Your task to perform on an android device: turn off airplane mode Image 0: 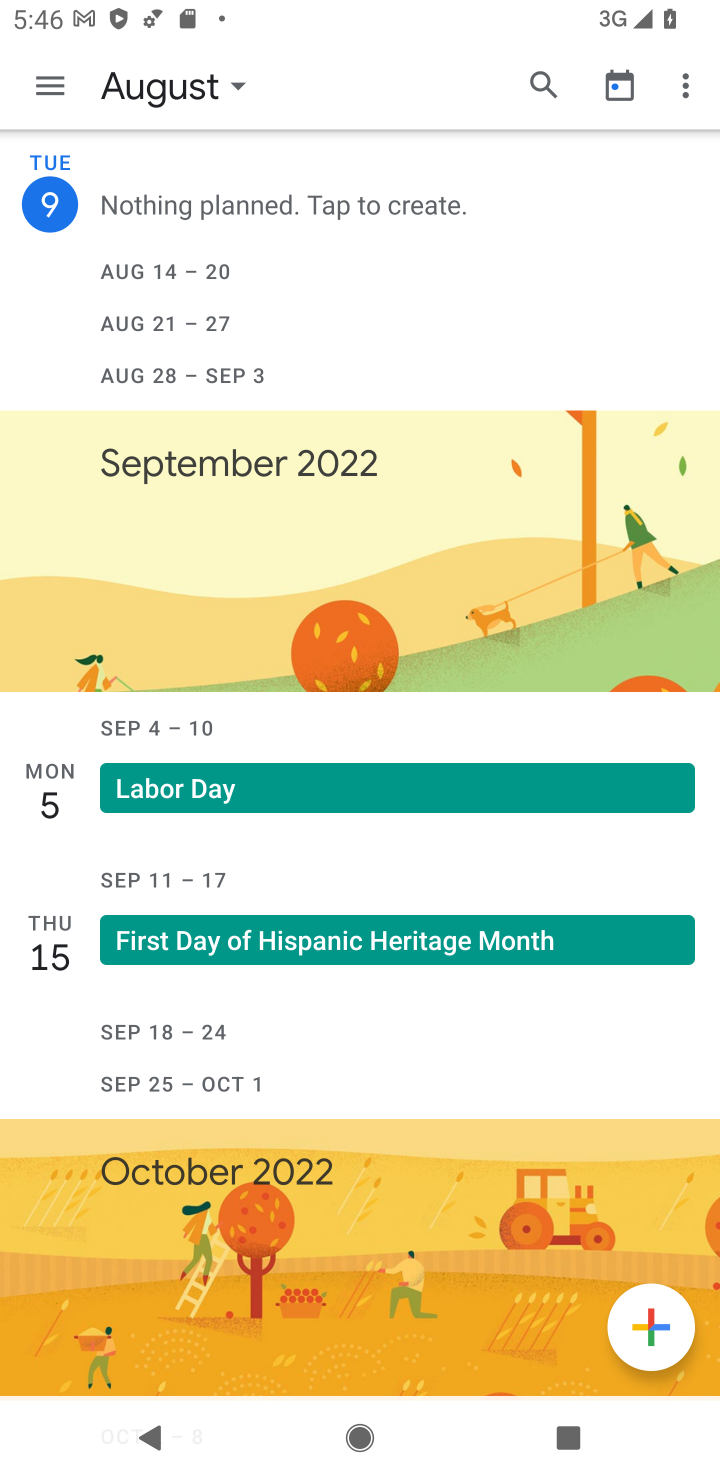
Step 0: press home button
Your task to perform on an android device: turn off airplane mode Image 1: 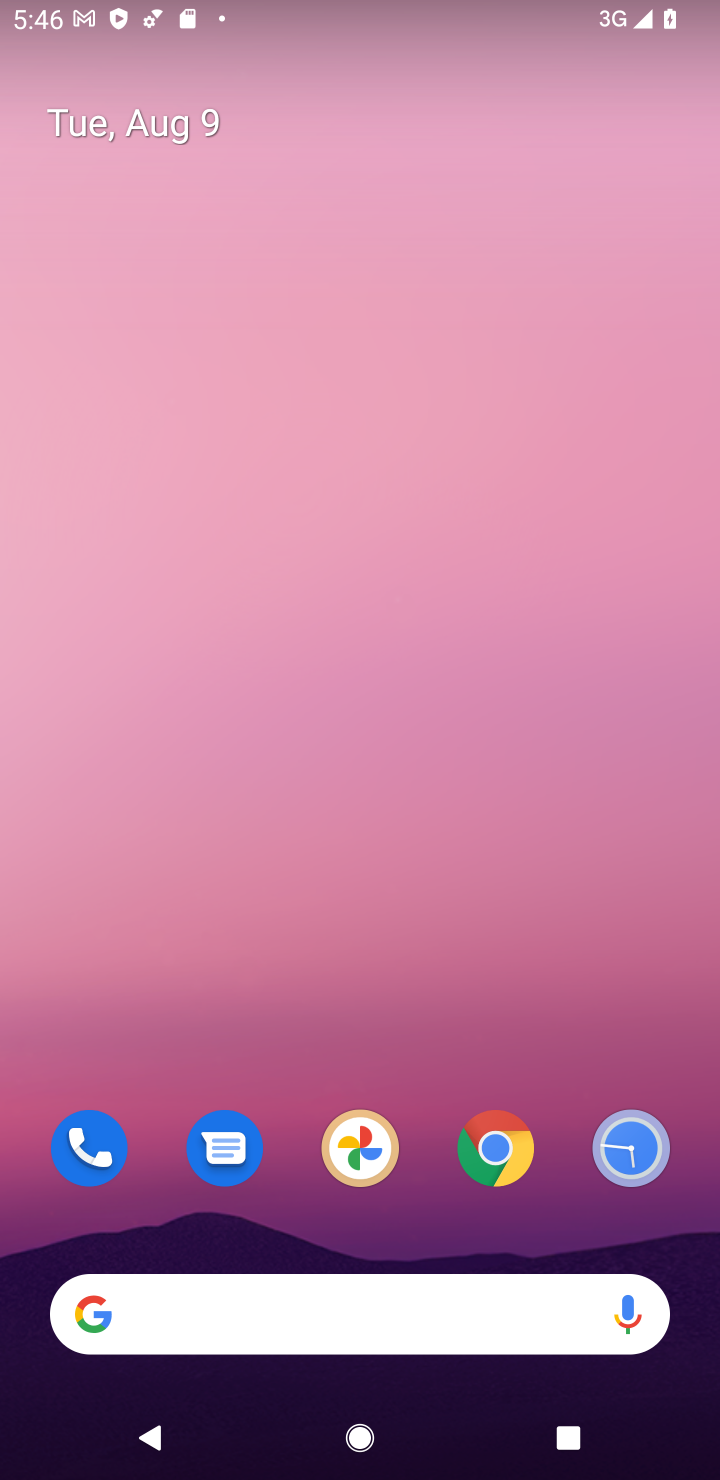
Step 1: drag from (295, 674) to (425, 16)
Your task to perform on an android device: turn off airplane mode Image 2: 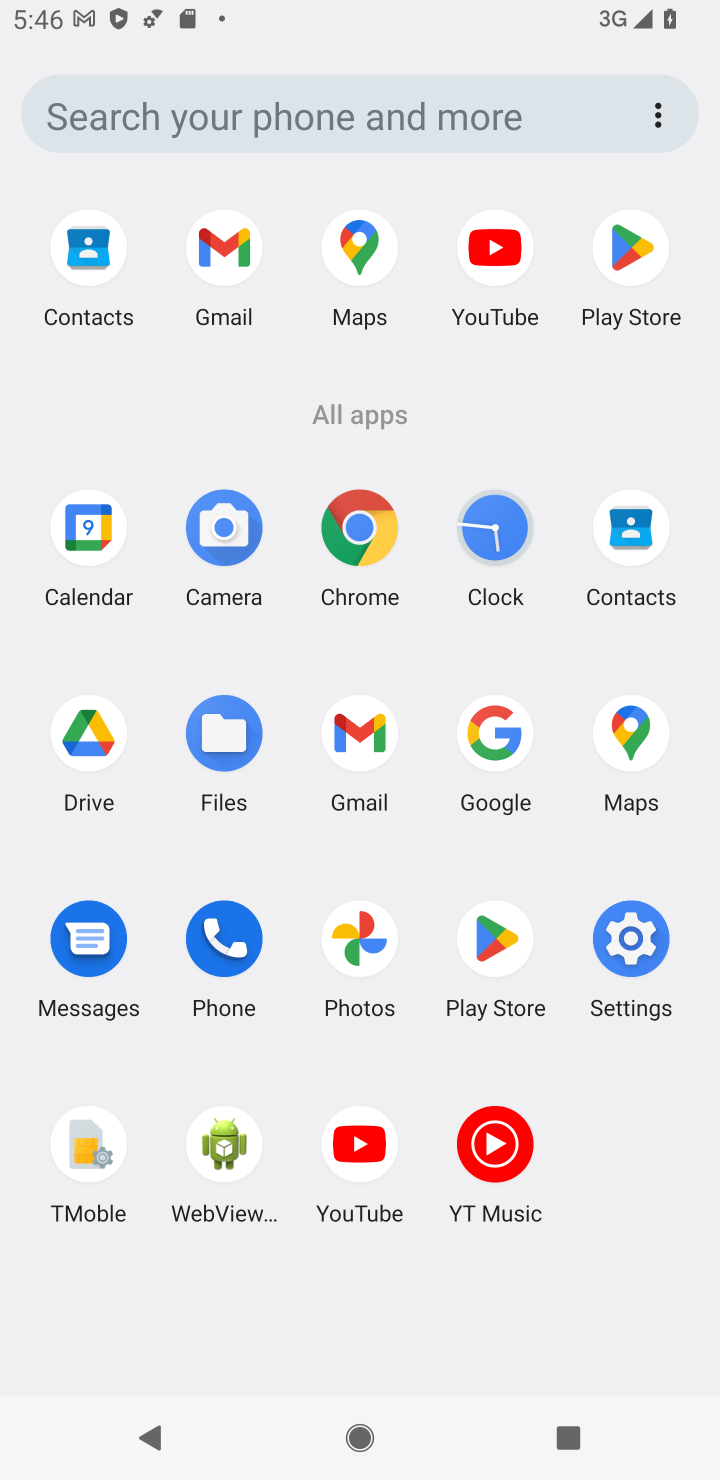
Step 2: click (632, 971)
Your task to perform on an android device: turn off airplane mode Image 3: 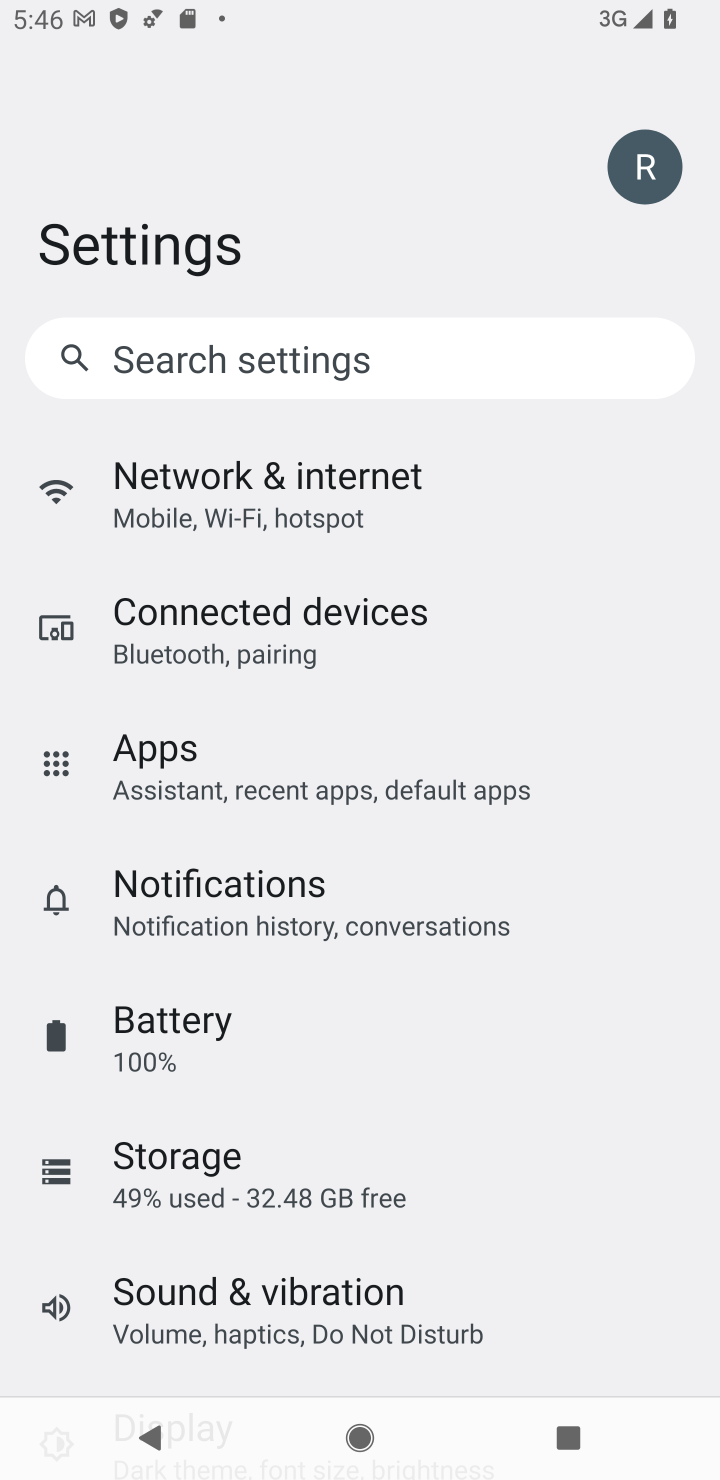
Step 3: click (291, 504)
Your task to perform on an android device: turn off airplane mode Image 4: 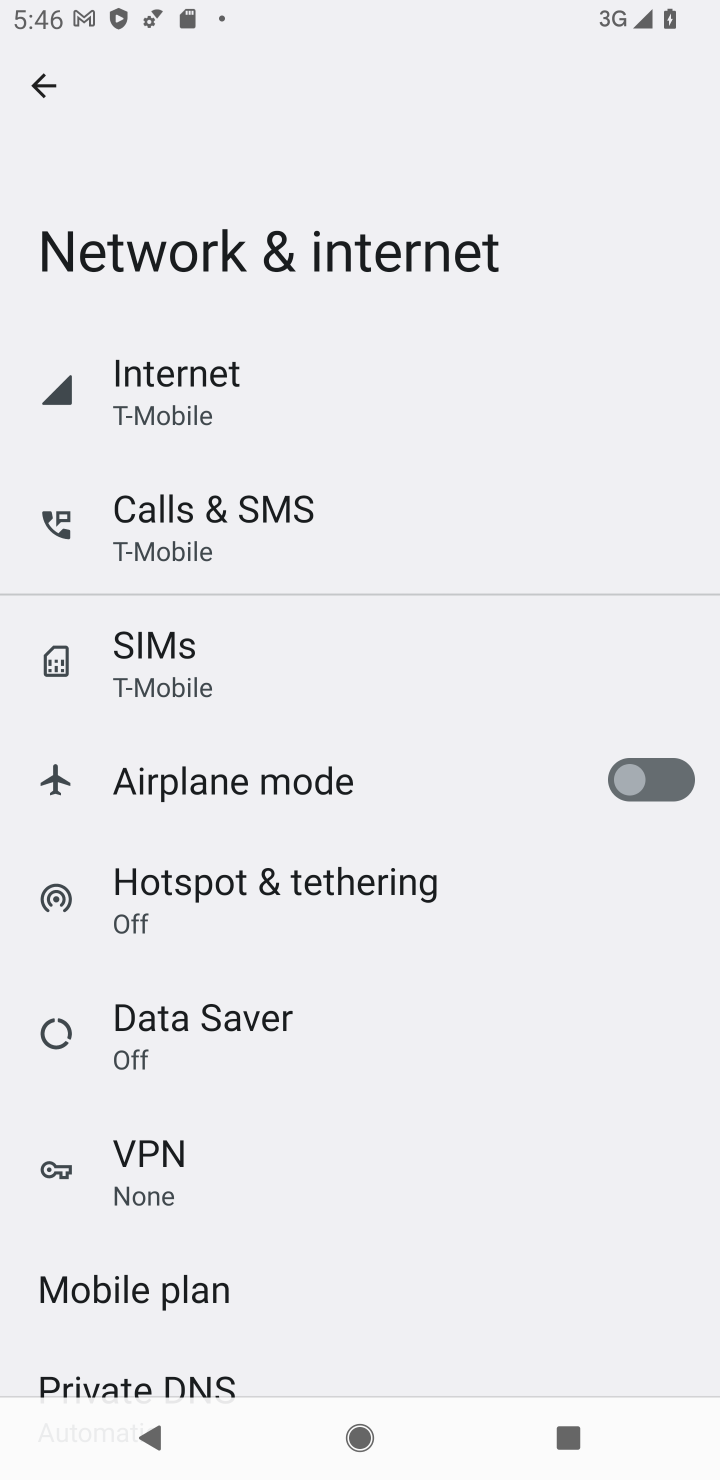
Step 4: task complete